Your task to perform on an android device: turn off improve location accuracy Image 0: 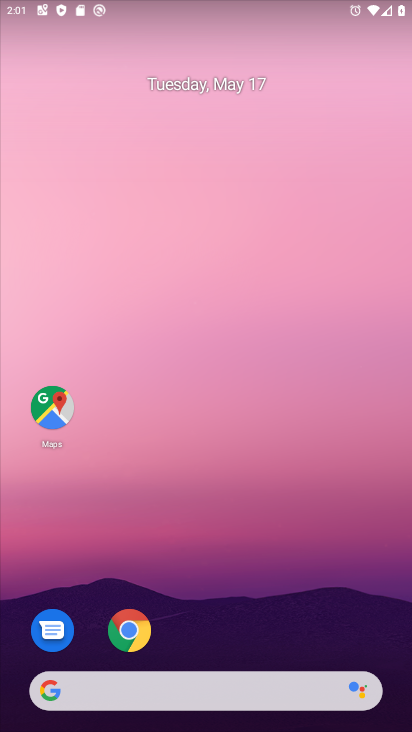
Step 0: drag from (322, 550) to (322, 129)
Your task to perform on an android device: turn off improve location accuracy Image 1: 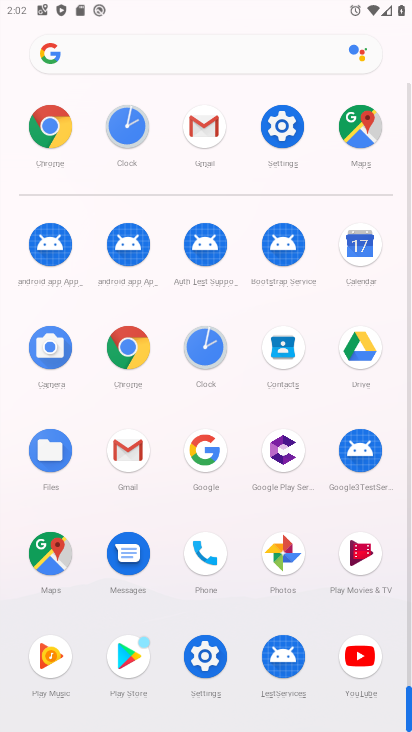
Step 1: click (197, 661)
Your task to perform on an android device: turn off improve location accuracy Image 2: 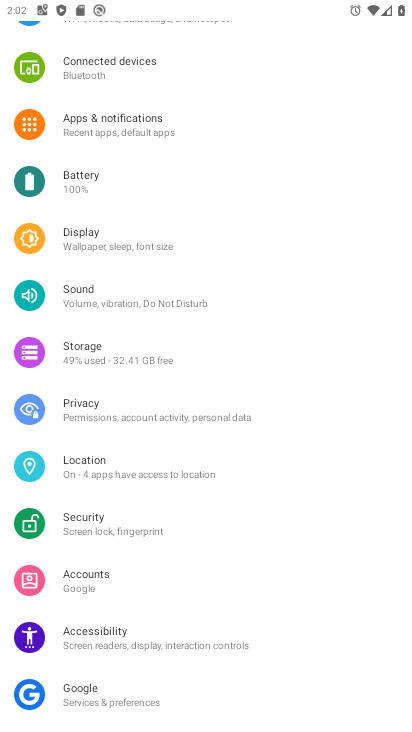
Step 2: click (131, 466)
Your task to perform on an android device: turn off improve location accuracy Image 3: 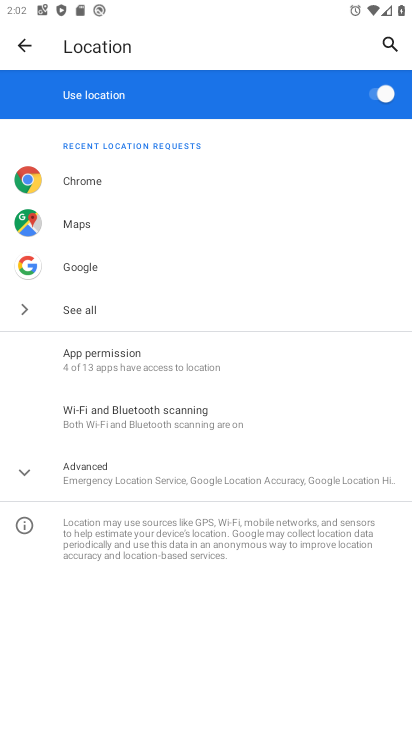
Step 3: click (132, 479)
Your task to perform on an android device: turn off improve location accuracy Image 4: 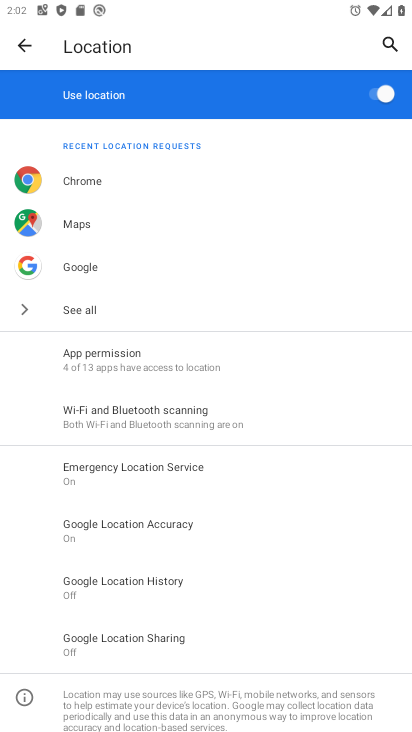
Step 4: click (141, 519)
Your task to perform on an android device: turn off improve location accuracy Image 5: 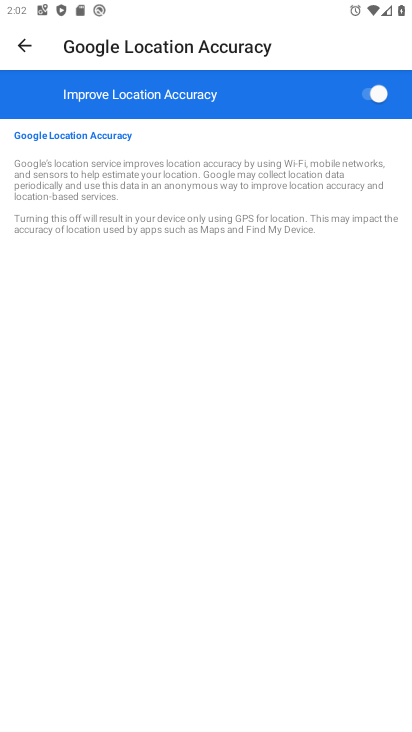
Step 5: click (363, 98)
Your task to perform on an android device: turn off improve location accuracy Image 6: 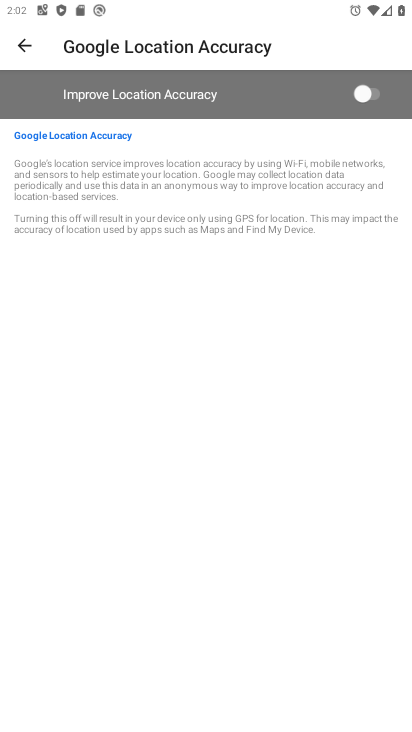
Step 6: task complete